Your task to perform on an android device: Show me productivity apps on the Play Store Image 0: 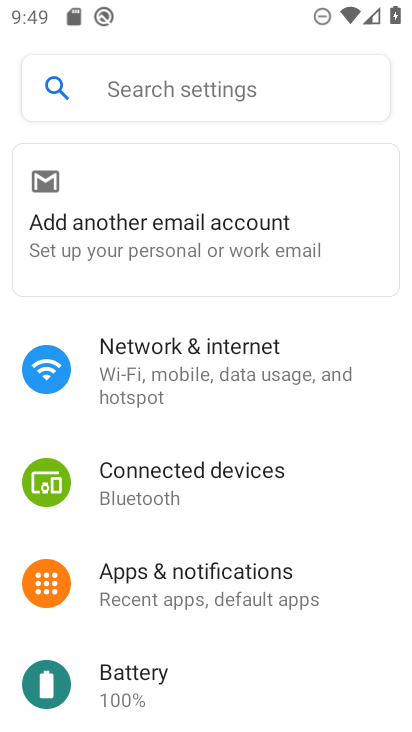
Step 0: press back button
Your task to perform on an android device: Show me productivity apps on the Play Store Image 1: 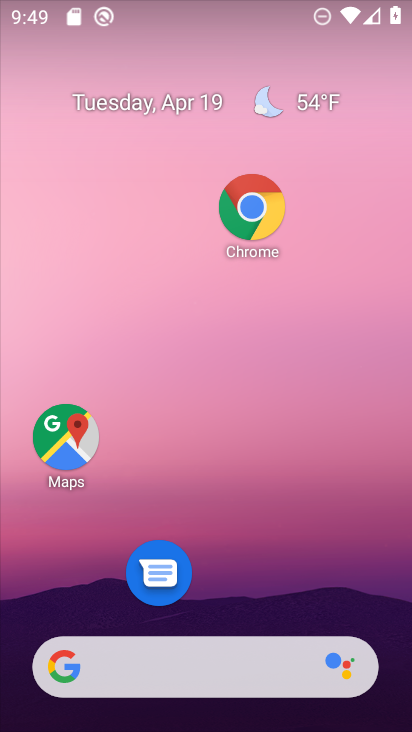
Step 1: drag from (184, 628) to (199, 207)
Your task to perform on an android device: Show me productivity apps on the Play Store Image 2: 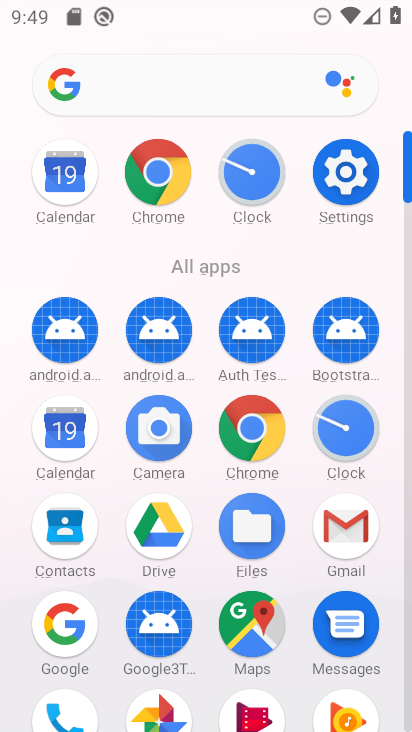
Step 2: drag from (210, 667) to (253, 309)
Your task to perform on an android device: Show me productivity apps on the Play Store Image 3: 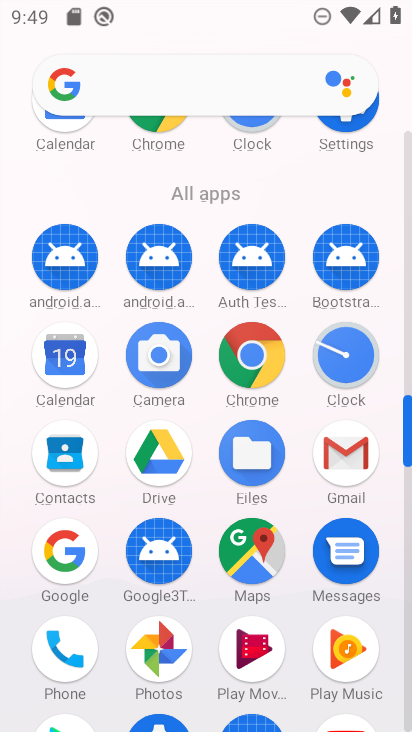
Step 3: drag from (200, 649) to (245, 294)
Your task to perform on an android device: Show me productivity apps on the Play Store Image 4: 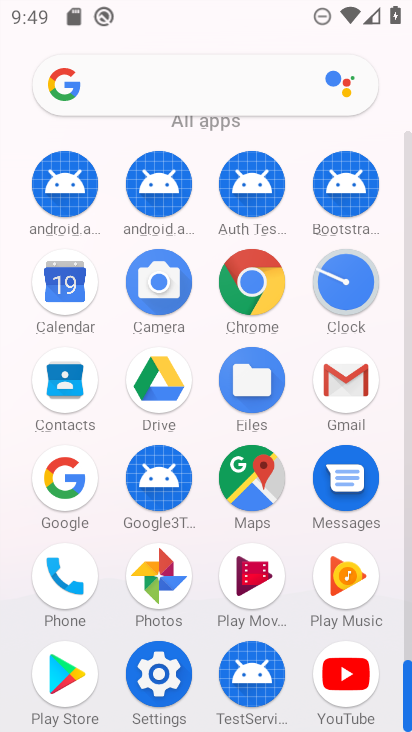
Step 4: click (68, 677)
Your task to perform on an android device: Show me productivity apps on the Play Store Image 5: 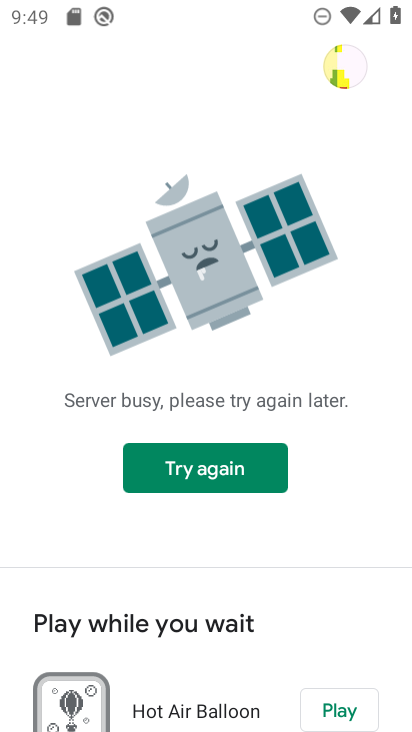
Step 5: click (211, 476)
Your task to perform on an android device: Show me productivity apps on the Play Store Image 6: 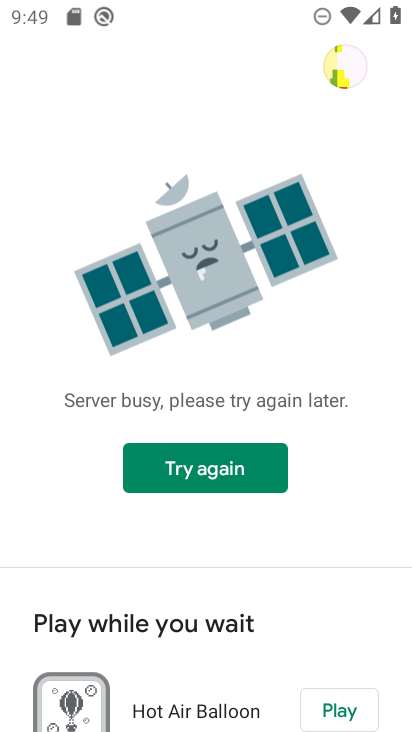
Step 6: task complete